Your task to perform on an android device: open chrome privacy settings Image 0: 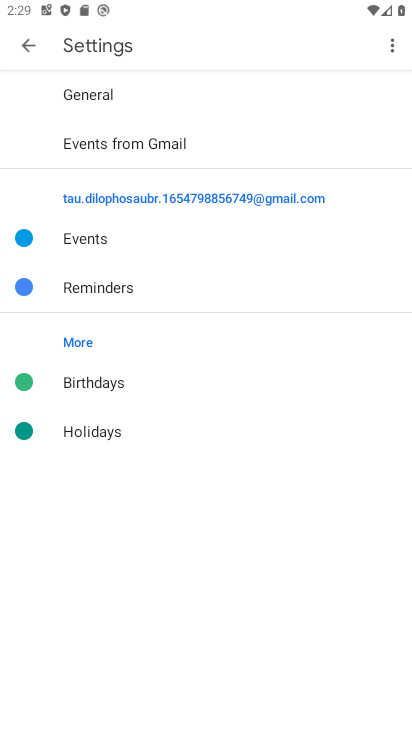
Step 0: press home button
Your task to perform on an android device: open chrome privacy settings Image 1: 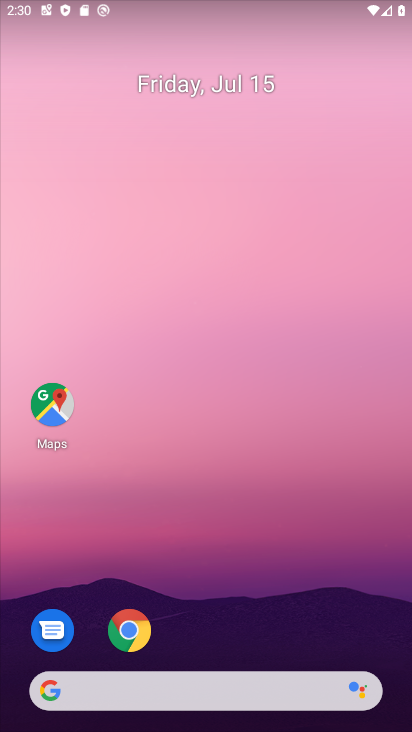
Step 1: drag from (200, 648) to (224, 90)
Your task to perform on an android device: open chrome privacy settings Image 2: 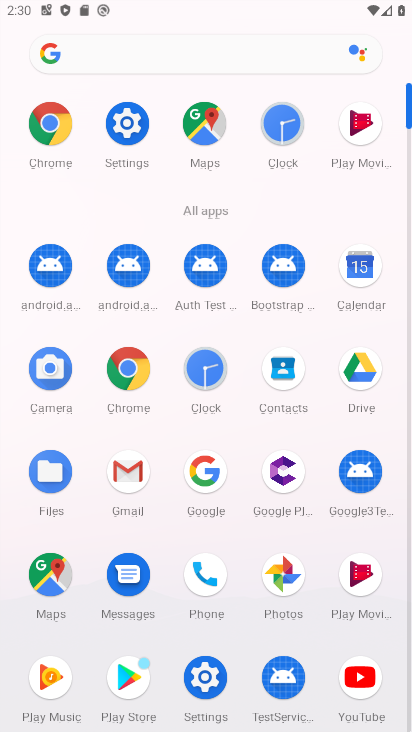
Step 2: click (131, 372)
Your task to perform on an android device: open chrome privacy settings Image 3: 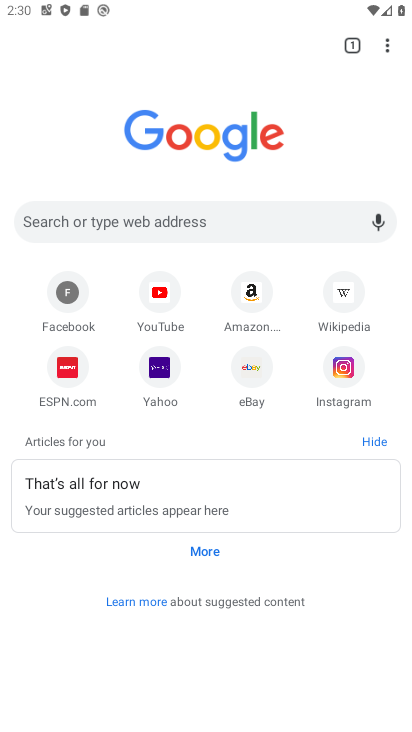
Step 3: click (131, 372)
Your task to perform on an android device: open chrome privacy settings Image 4: 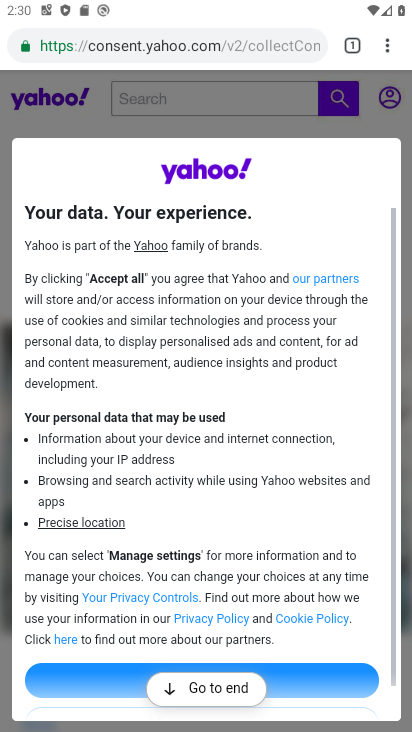
Step 4: click (380, 40)
Your task to perform on an android device: open chrome privacy settings Image 5: 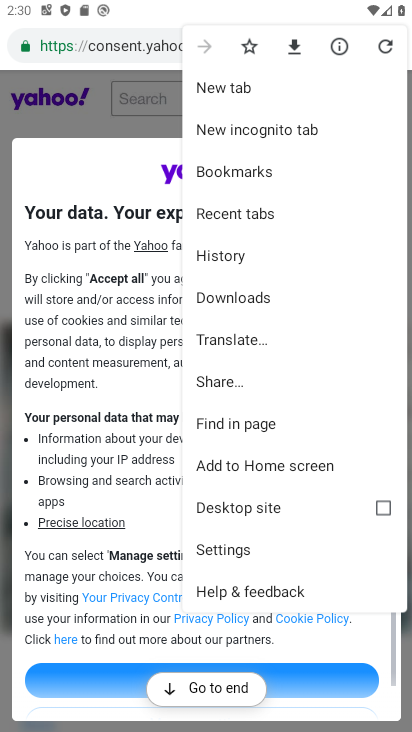
Step 5: click (222, 554)
Your task to perform on an android device: open chrome privacy settings Image 6: 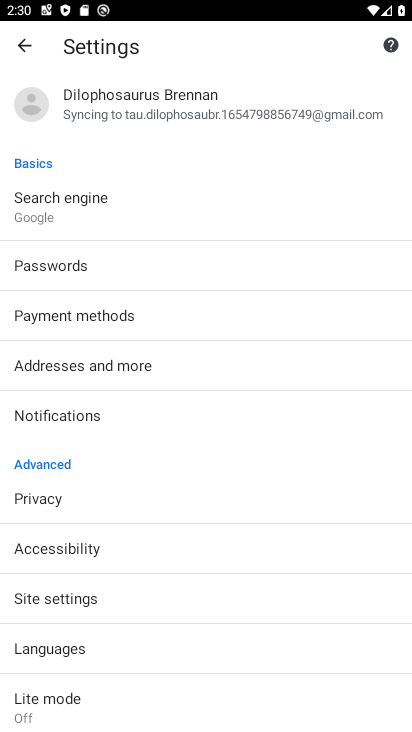
Step 6: click (59, 497)
Your task to perform on an android device: open chrome privacy settings Image 7: 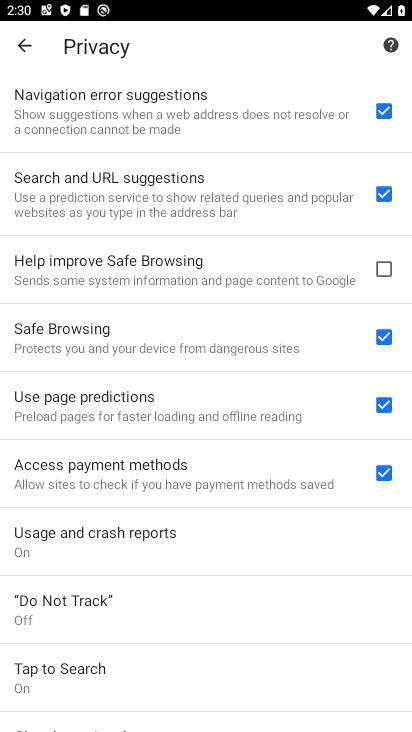
Step 7: task complete